Your task to perform on an android device: Go to display settings Image 0: 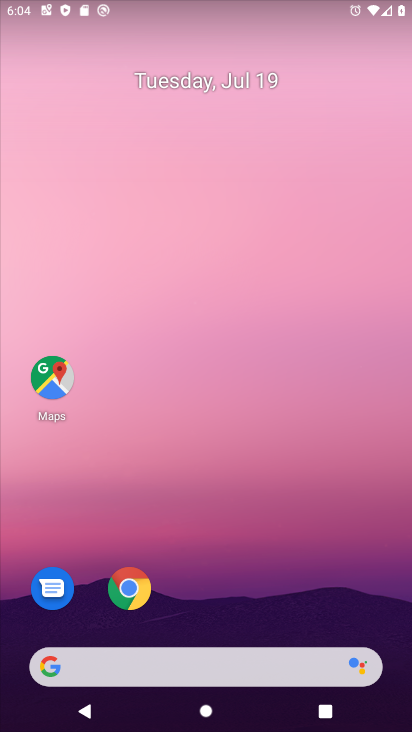
Step 0: drag from (179, 613) to (190, 37)
Your task to perform on an android device: Go to display settings Image 1: 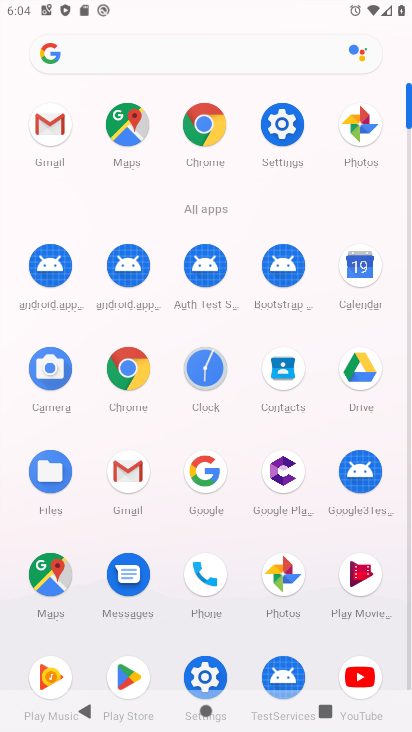
Step 1: click (276, 119)
Your task to perform on an android device: Go to display settings Image 2: 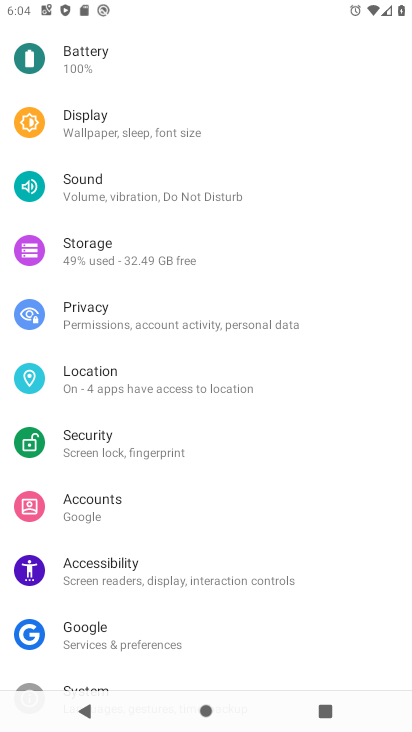
Step 2: click (87, 139)
Your task to perform on an android device: Go to display settings Image 3: 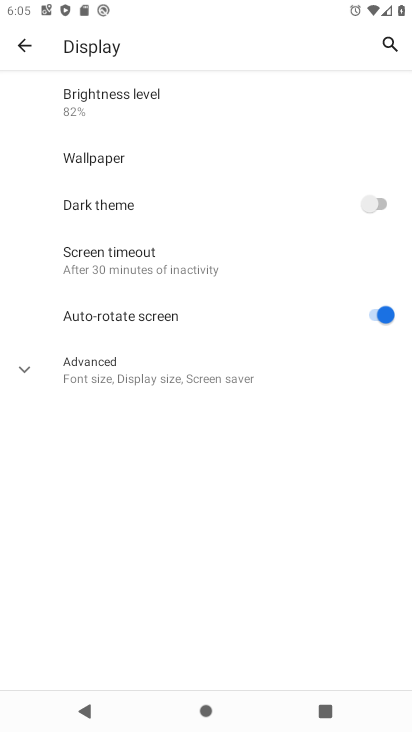
Step 3: task complete